Your task to perform on an android device: Open Android settings Image 0: 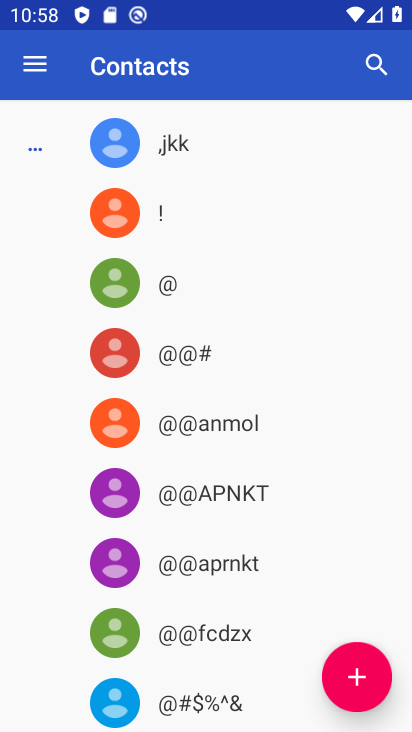
Step 0: press home button
Your task to perform on an android device: Open Android settings Image 1: 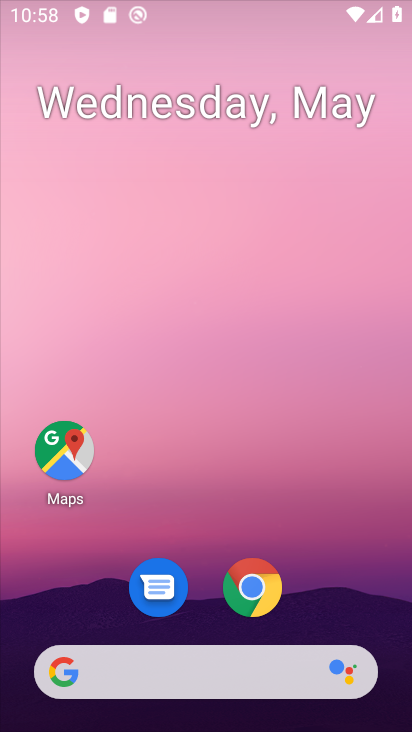
Step 1: drag from (265, 531) to (308, 21)
Your task to perform on an android device: Open Android settings Image 2: 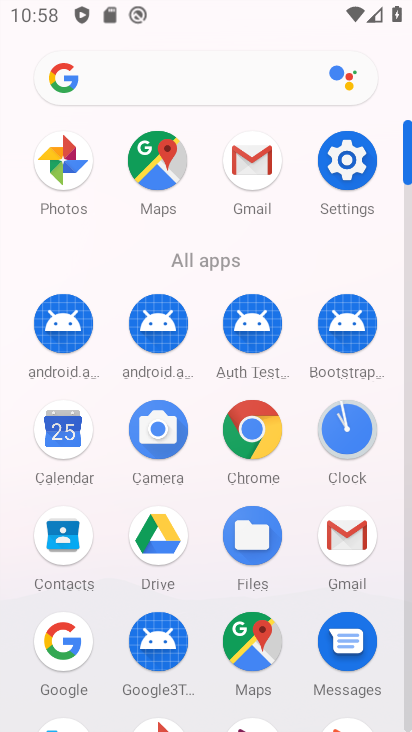
Step 2: click (349, 158)
Your task to perform on an android device: Open Android settings Image 3: 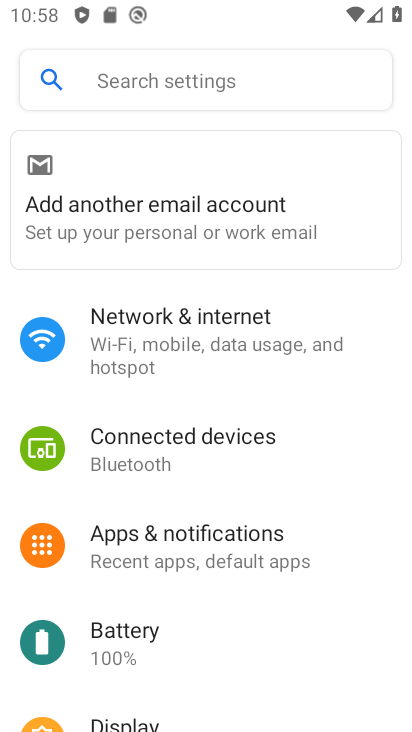
Step 3: drag from (205, 590) to (291, 9)
Your task to perform on an android device: Open Android settings Image 4: 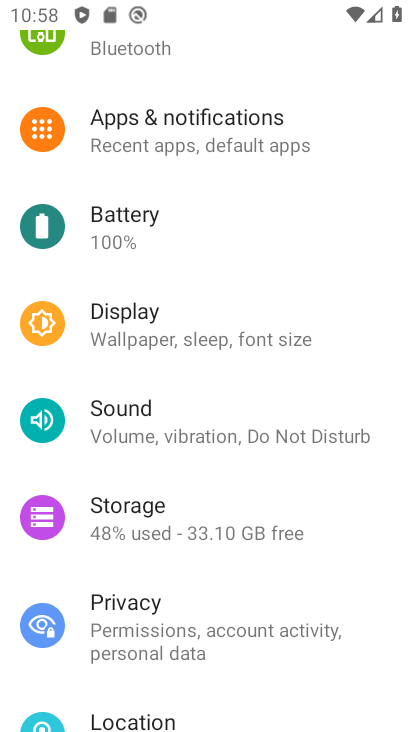
Step 4: drag from (243, 507) to (292, 9)
Your task to perform on an android device: Open Android settings Image 5: 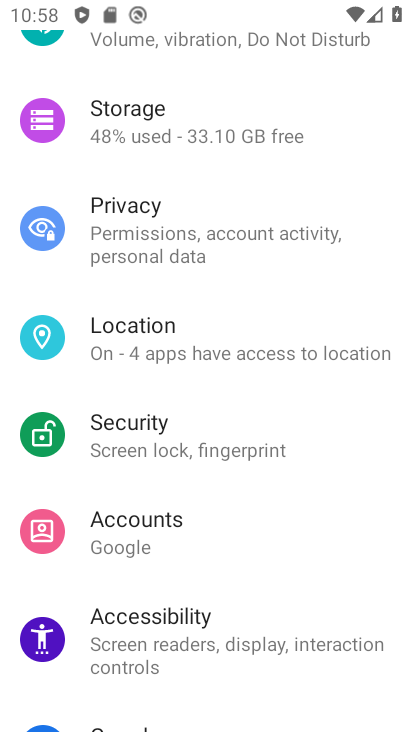
Step 5: drag from (272, 593) to (312, 17)
Your task to perform on an android device: Open Android settings Image 6: 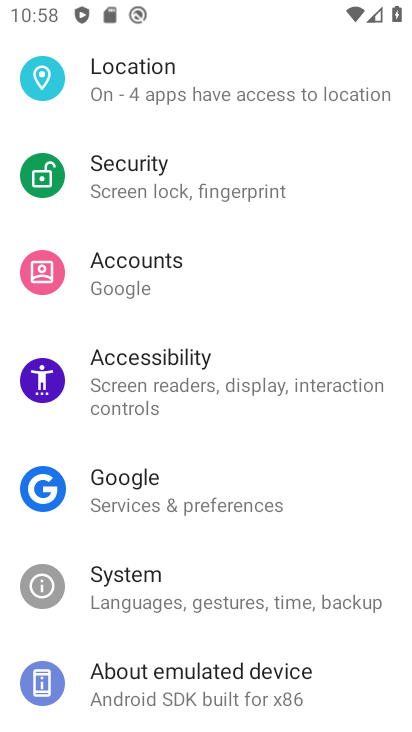
Step 6: click (190, 603)
Your task to perform on an android device: Open Android settings Image 7: 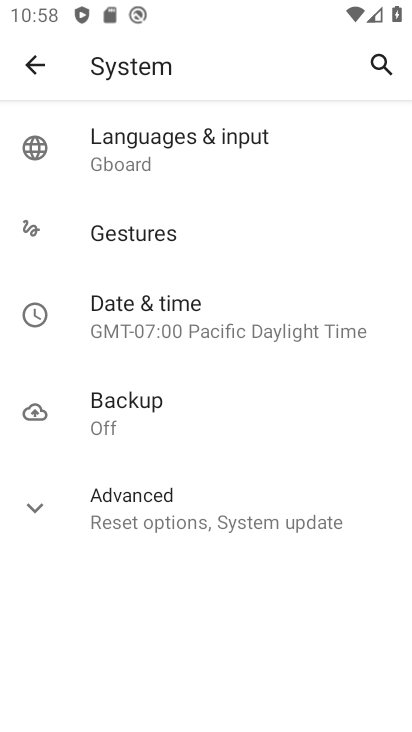
Step 7: task complete